Your task to perform on an android device: visit the assistant section in the google photos Image 0: 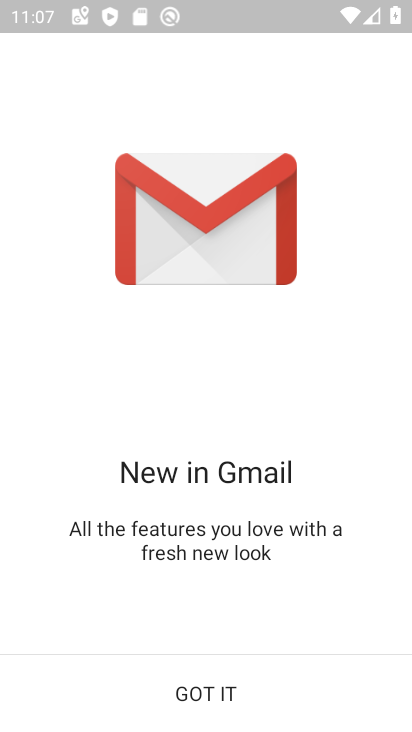
Step 0: click (248, 568)
Your task to perform on an android device: visit the assistant section in the google photos Image 1: 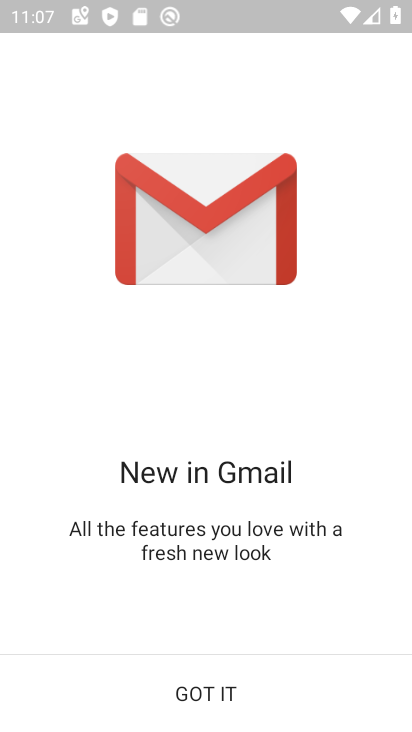
Step 1: click (209, 690)
Your task to perform on an android device: visit the assistant section in the google photos Image 2: 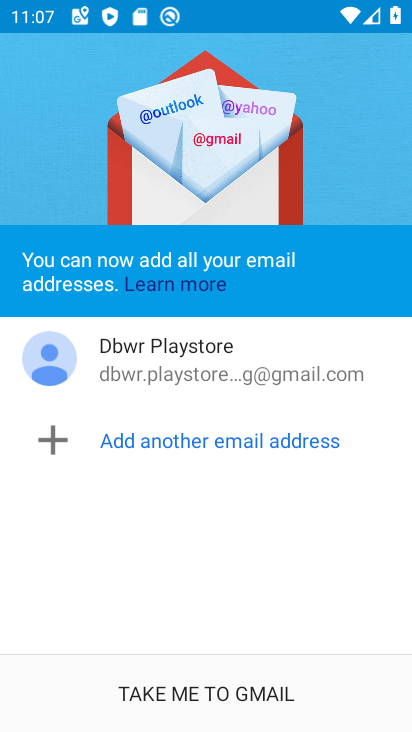
Step 2: click (209, 690)
Your task to perform on an android device: visit the assistant section in the google photos Image 3: 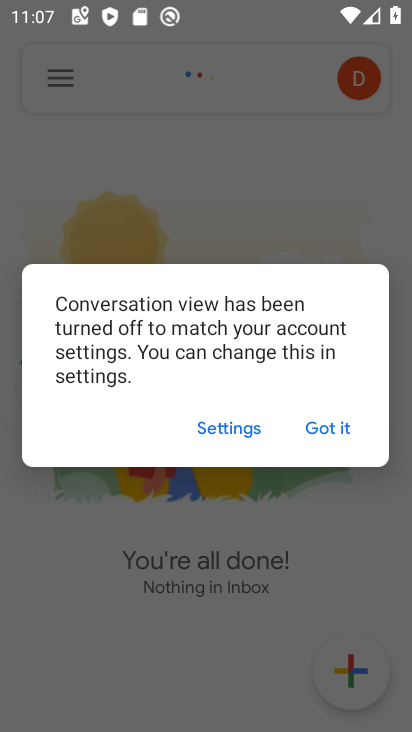
Step 3: click (319, 430)
Your task to perform on an android device: visit the assistant section in the google photos Image 4: 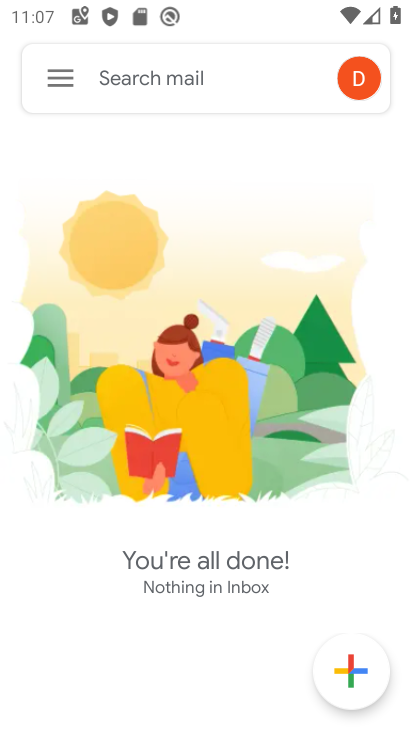
Step 4: press home button
Your task to perform on an android device: visit the assistant section in the google photos Image 5: 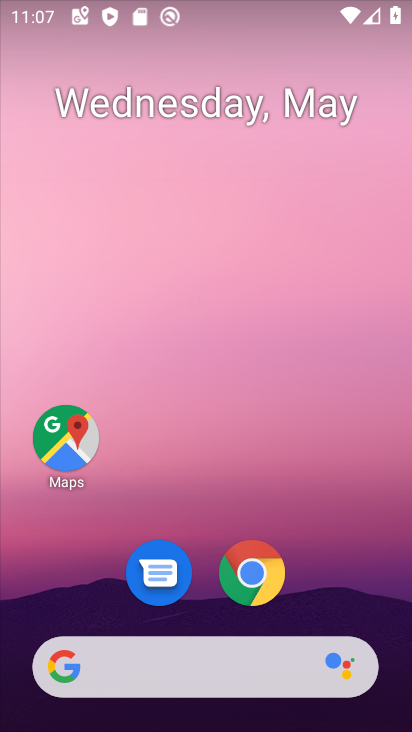
Step 5: drag from (215, 508) to (112, 119)
Your task to perform on an android device: visit the assistant section in the google photos Image 6: 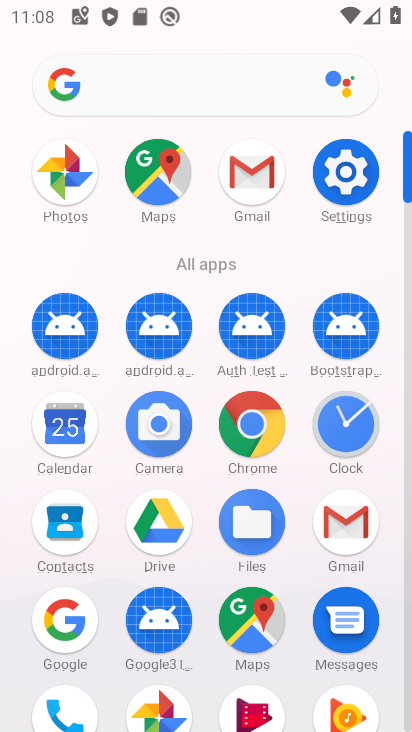
Step 6: click (45, 176)
Your task to perform on an android device: visit the assistant section in the google photos Image 7: 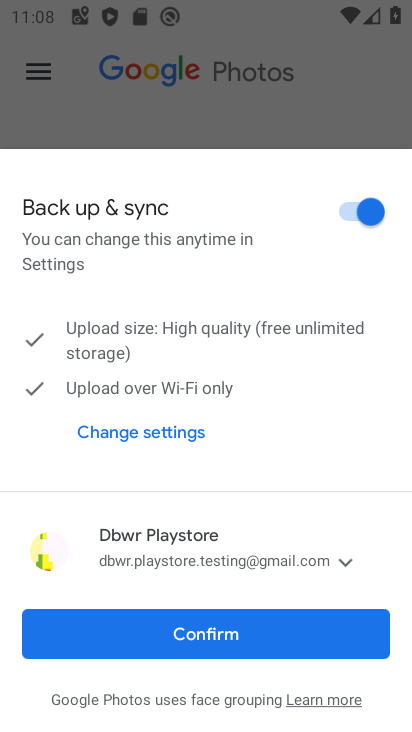
Step 7: click (214, 637)
Your task to perform on an android device: visit the assistant section in the google photos Image 8: 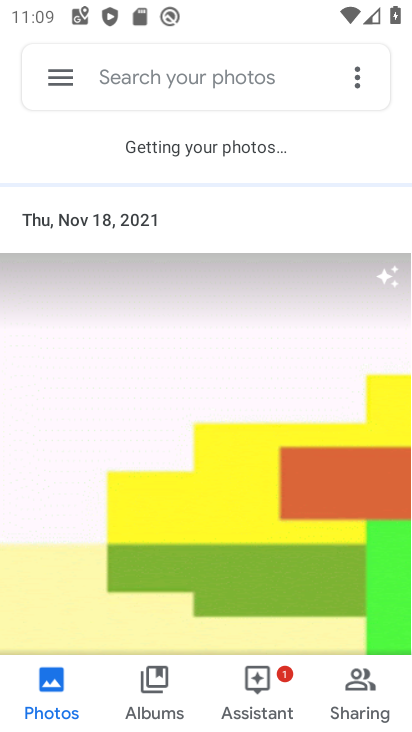
Step 8: click (260, 690)
Your task to perform on an android device: visit the assistant section in the google photos Image 9: 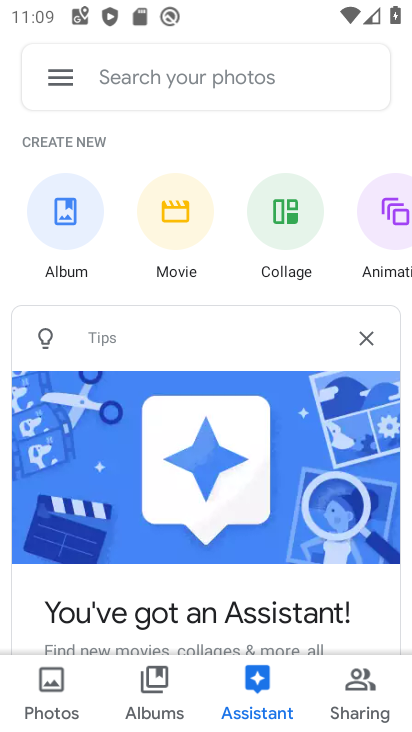
Step 9: task complete